Your task to perform on an android device: Open Google Maps and go to "Timeline" Image 0: 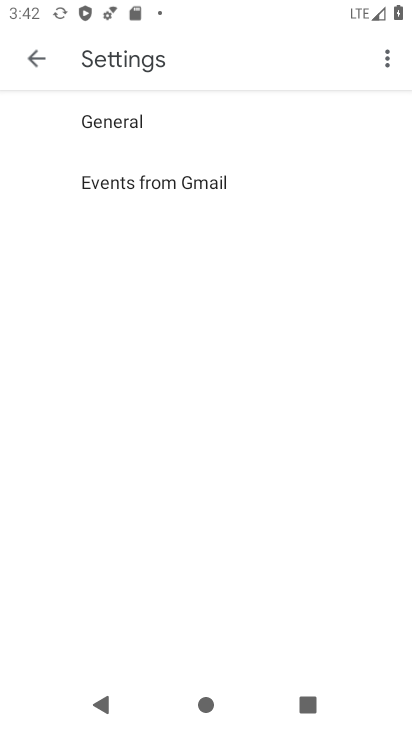
Step 0: press home button
Your task to perform on an android device: Open Google Maps and go to "Timeline" Image 1: 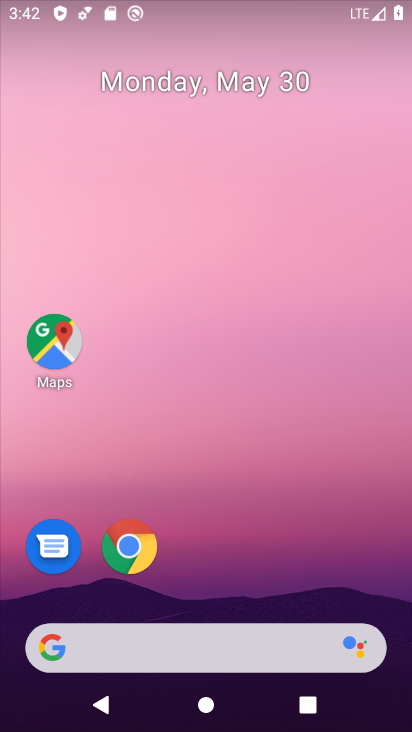
Step 1: click (63, 354)
Your task to perform on an android device: Open Google Maps and go to "Timeline" Image 2: 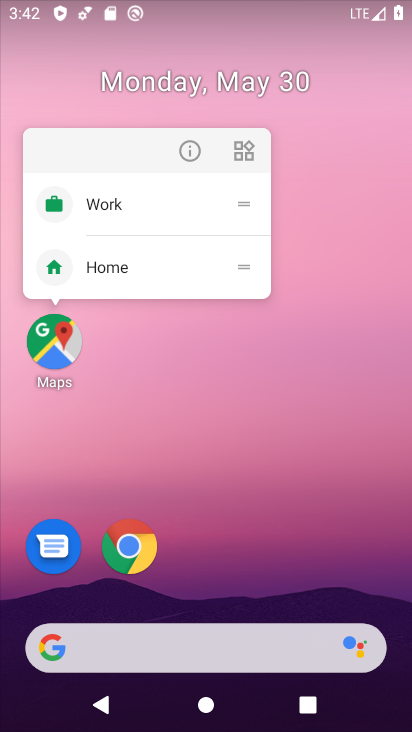
Step 2: click (63, 354)
Your task to perform on an android device: Open Google Maps and go to "Timeline" Image 3: 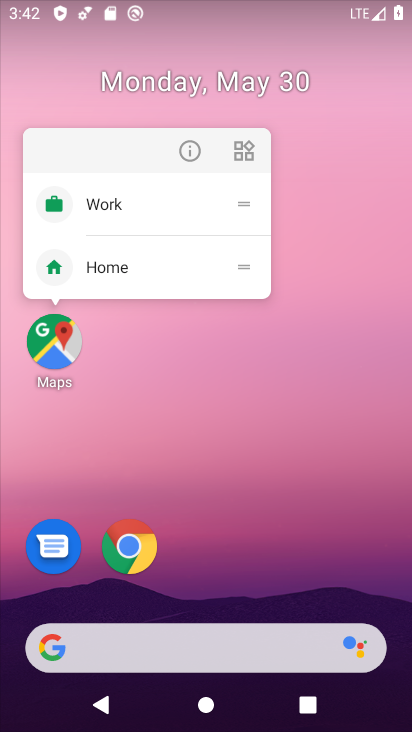
Step 3: click (63, 354)
Your task to perform on an android device: Open Google Maps and go to "Timeline" Image 4: 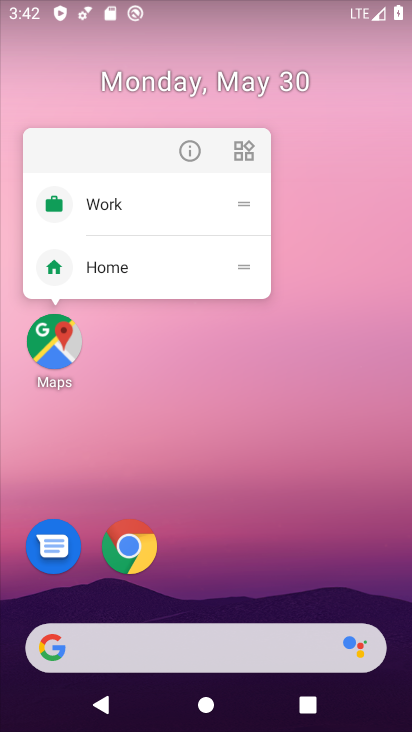
Step 4: click (63, 354)
Your task to perform on an android device: Open Google Maps and go to "Timeline" Image 5: 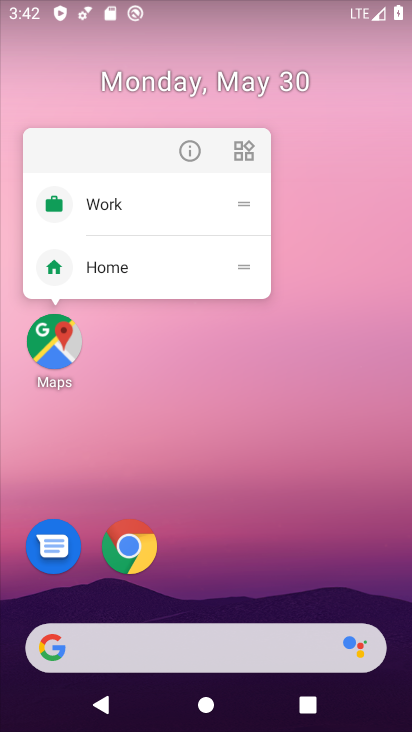
Step 5: click (63, 354)
Your task to perform on an android device: Open Google Maps and go to "Timeline" Image 6: 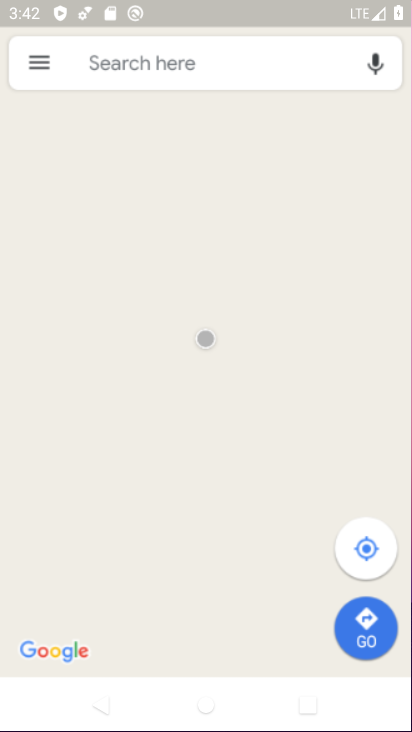
Step 6: click (48, 338)
Your task to perform on an android device: Open Google Maps and go to "Timeline" Image 7: 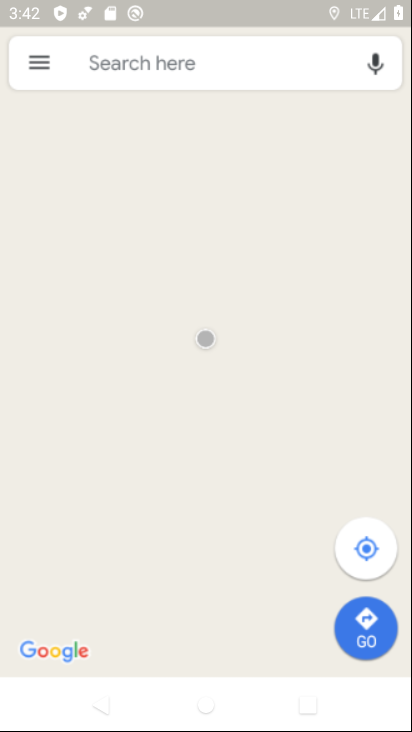
Step 7: click (48, 338)
Your task to perform on an android device: Open Google Maps and go to "Timeline" Image 8: 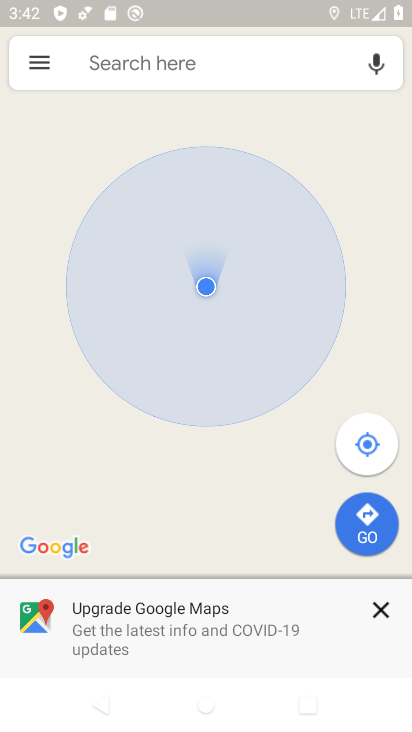
Step 8: click (51, 72)
Your task to perform on an android device: Open Google Maps and go to "Timeline" Image 9: 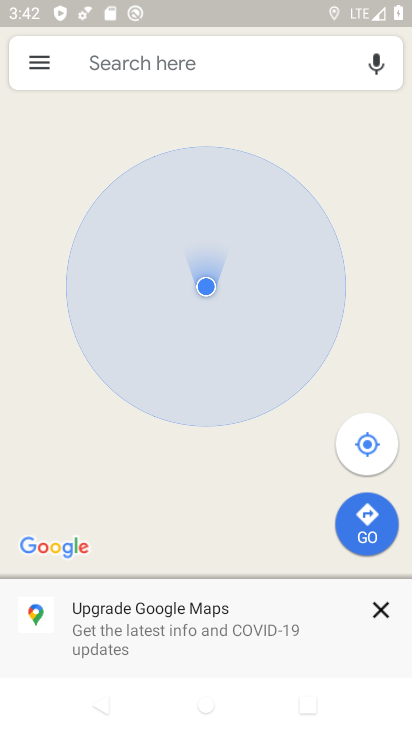
Step 9: click (36, 71)
Your task to perform on an android device: Open Google Maps and go to "Timeline" Image 10: 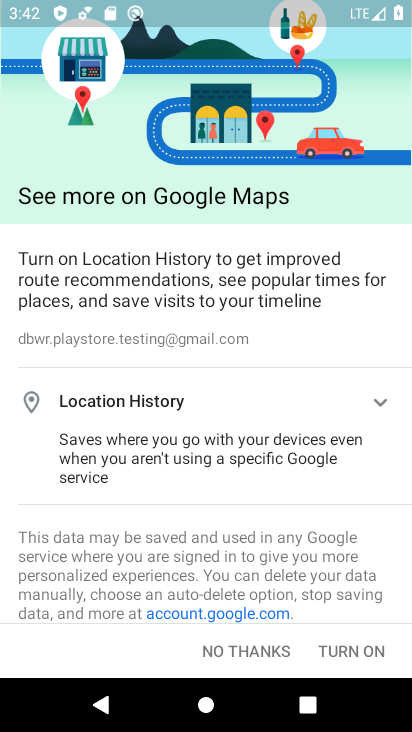
Step 10: click (236, 654)
Your task to perform on an android device: Open Google Maps and go to "Timeline" Image 11: 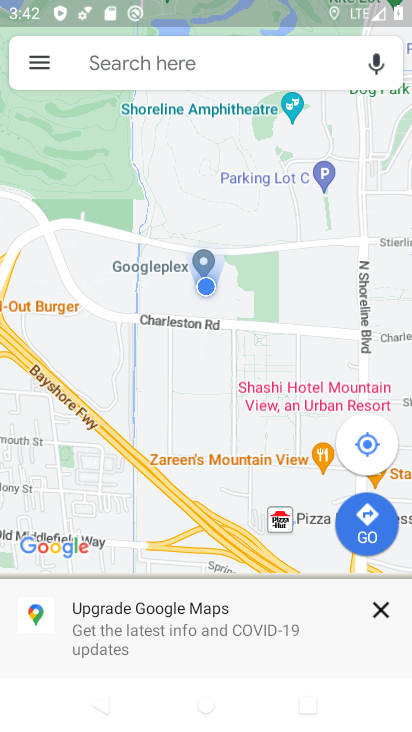
Step 11: click (39, 58)
Your task to perform on an android device: Open Google Maps and go to "Timeline" Image 12: 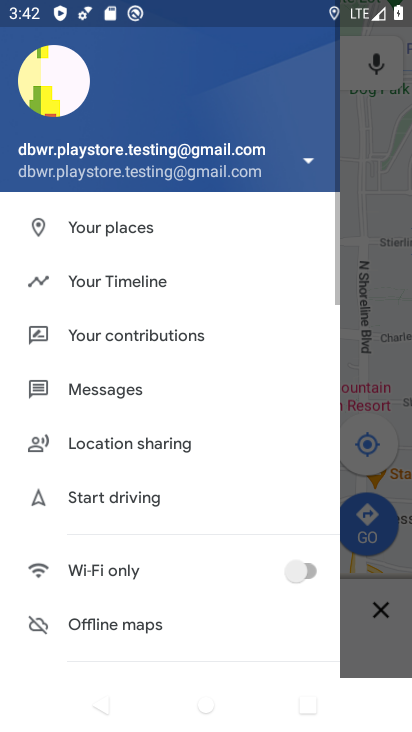
Step 12: click (85, 288)
Your task to perform on an android device: Open Google Maps and go to "Timeline" Image 13: 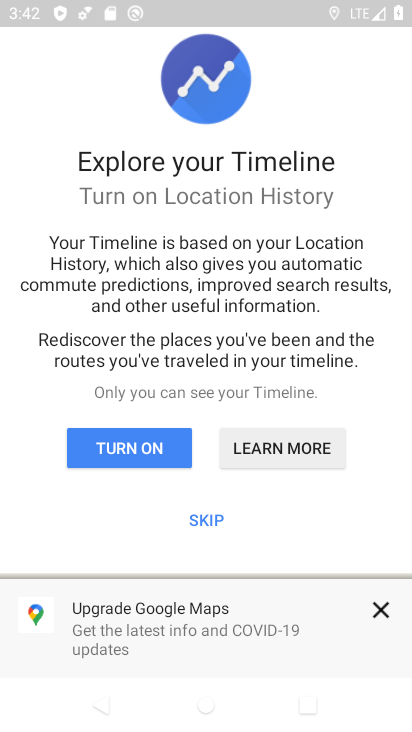
Step 13: task complete